Your task to perform on an android device: turn off sleep mode Image 0: 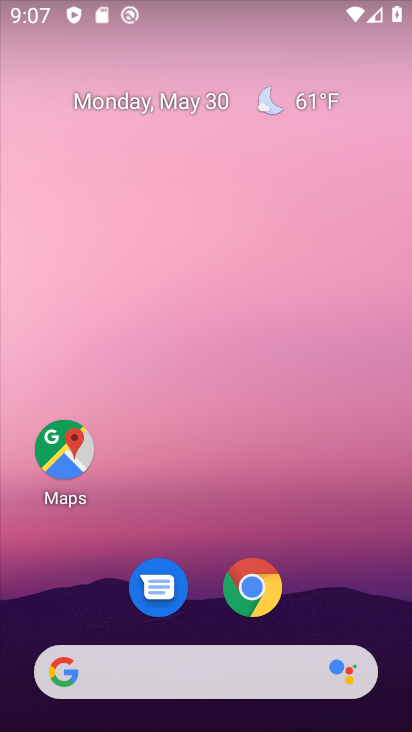
Step 0: drag from (185, 643) to (264, 28)
Your task to perform on an android device: turn off sleep mode Image 1: 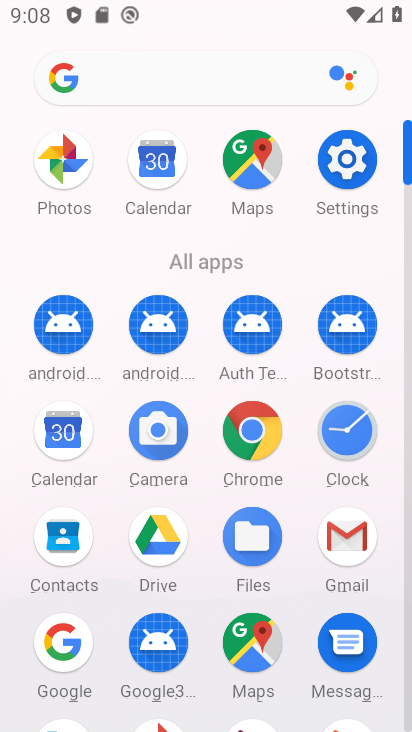
Step 1: click (340, 162)
Your task to perform on an android device: turn off sleep mode Image 2: 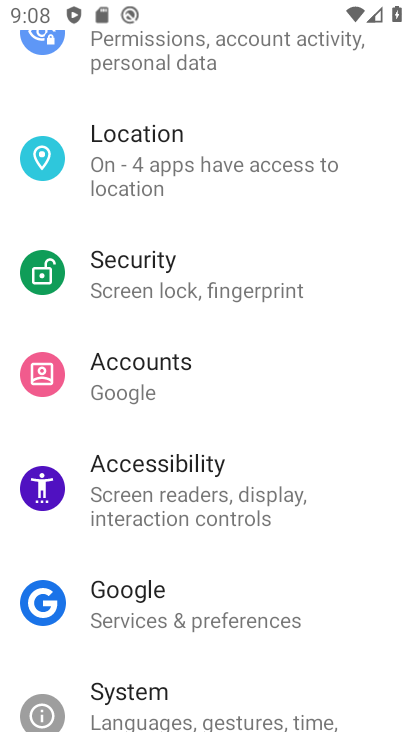
Step 2: drag from (188, 293) to (165, 671)
Your task to perform on an android device: turn off sleep mode Image 3: 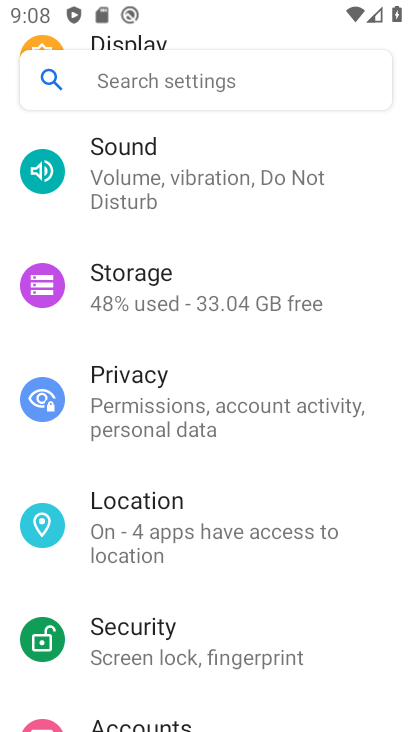
Step 3: drag from (153, 178) to (143, 579)
Your task to perform on an android device: turn off sleep mode Image 4: 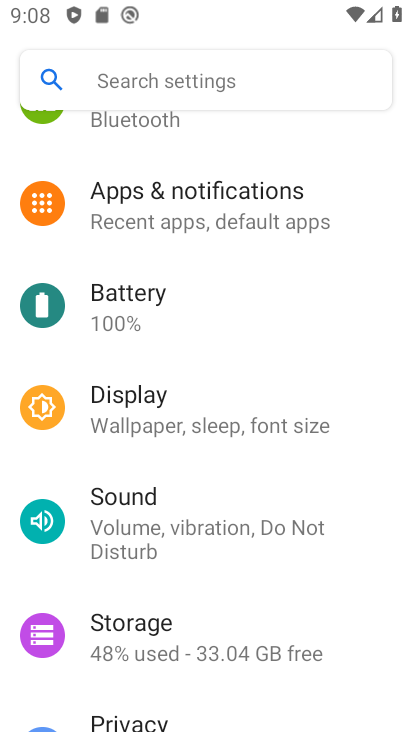
Step 4: click (153, 410)
Your task to perform on an android device: turn off sleep mode Image 5: 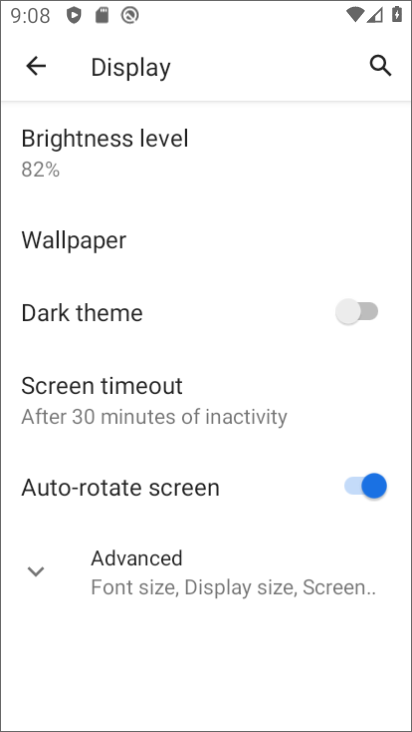
Step 5: task complete